Your task to perform on an android device: clear history in the chrome app Image 0: 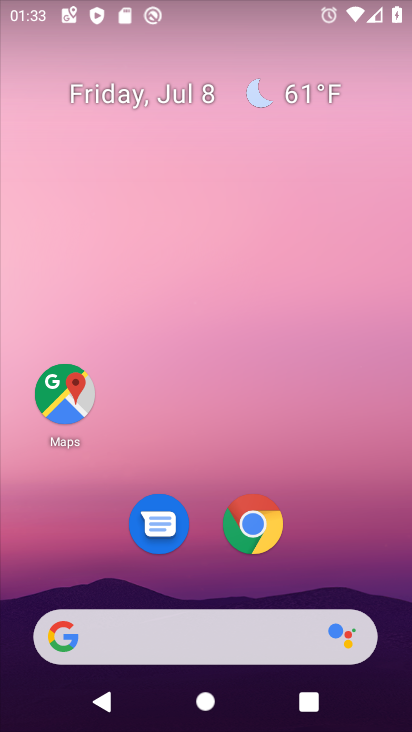
Step 0: click (267, 522)
Your task to perform on an android device: clear history in the chrome app Image 1: 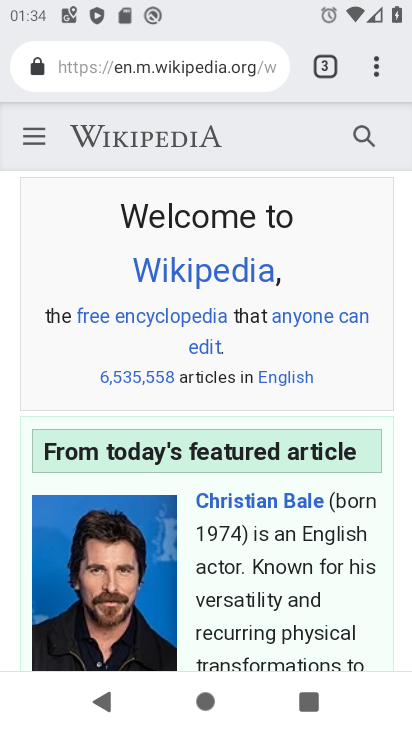
Step 1: click (377, 69)
Your task to perform on an android device: clear history in the chrome app Image 2: 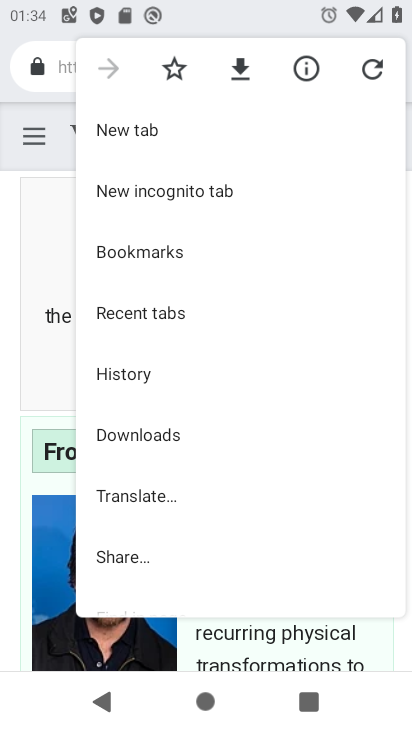
Step 2: click (139, 367)
Your task to perform on an android device: clear history in the chrome app Image 3: 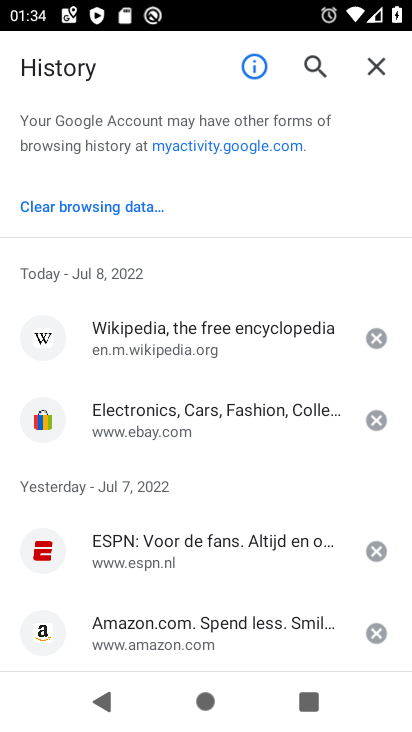
Step 3: click (123, 207)
Your task to perform on an android device: clear history in the chrome app Image 4: 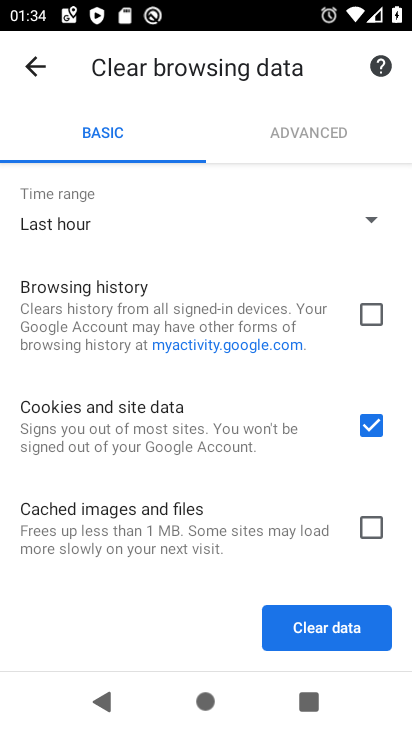
Step 4: click (367, 306)
Your task to perform on an android device: clear history in the chrome app Image 5: 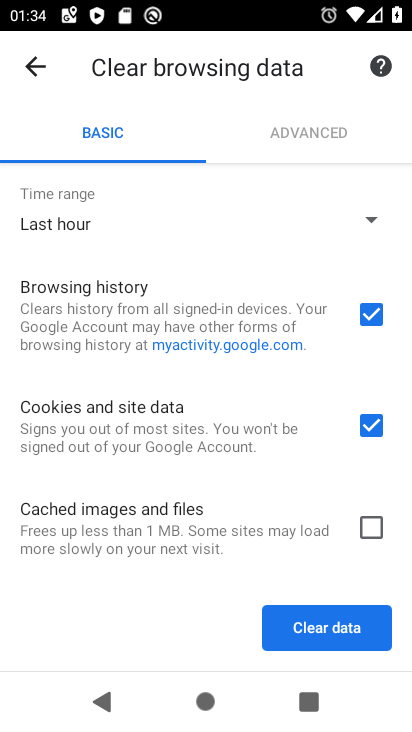
Step 5: click (369, 422)
Your task to perform on an android device: clear history in the chrome app Image 6: 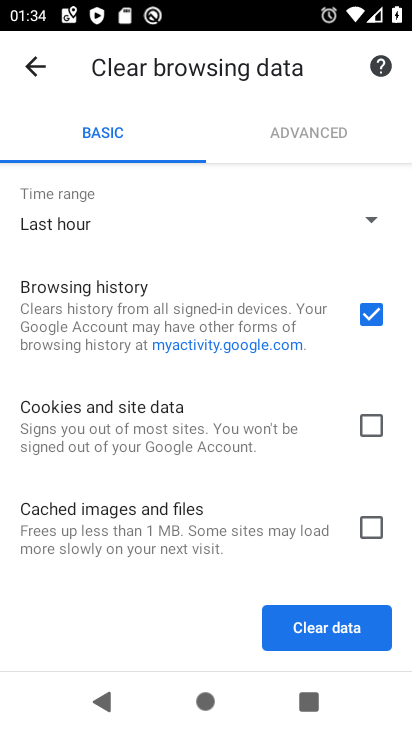
Step 6: click (379, 619)
Your task to perform on an android device: clear history in the chrome app Image 7: 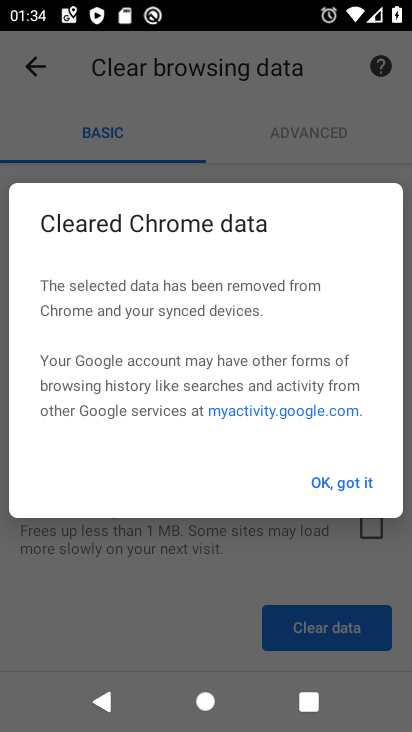
Step 7: click (361, 479)
Your task to perform on an android device: clear history in the chrome app Image 8: 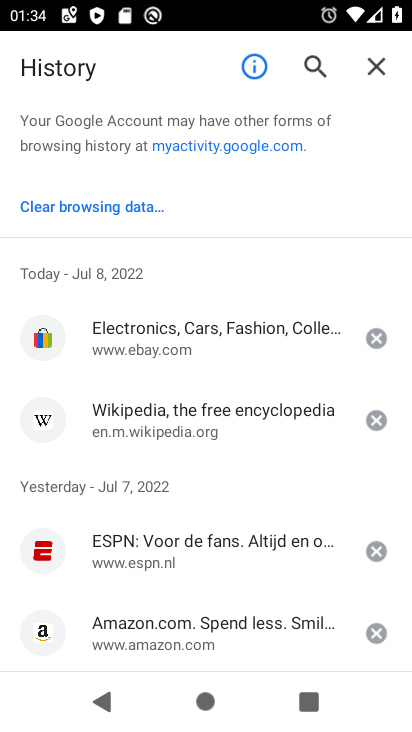
Step 8: task complete